Your task to perform on an android device: See recent photos Image 0: 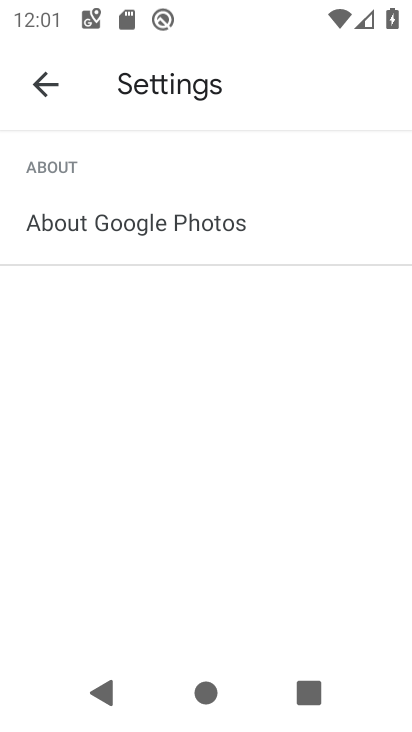
Step 0: press home button
Your task to perform on an android device: See recent photos Image 1: 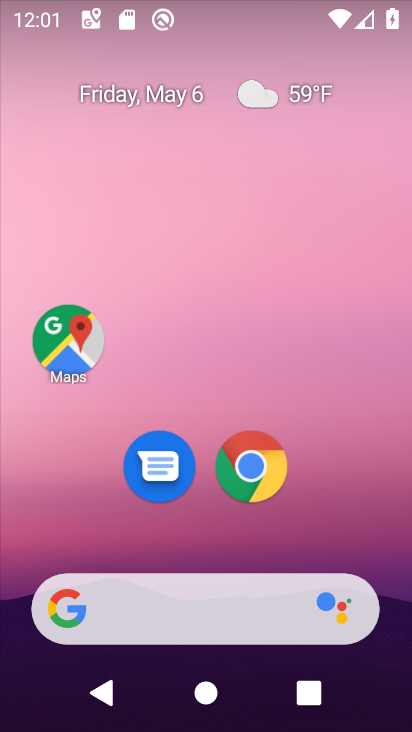
Step 1: drag from (389, 577) to (289, 183)
Your task to perform on an android device: See recent photos Image 2: 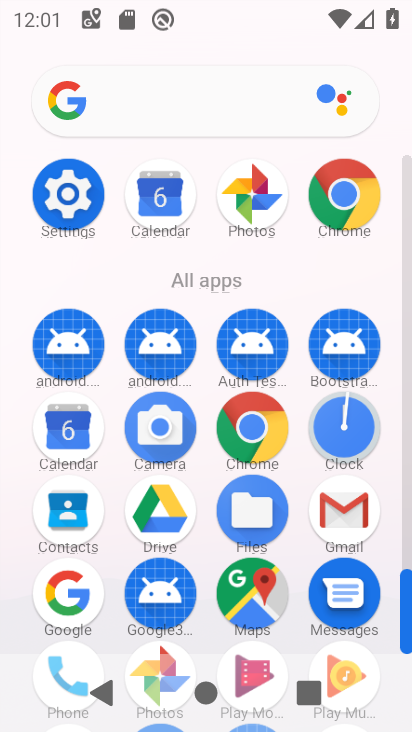
Step 2: click (262, 190)
Your task to perform on an android device: See recent photos Image 3: 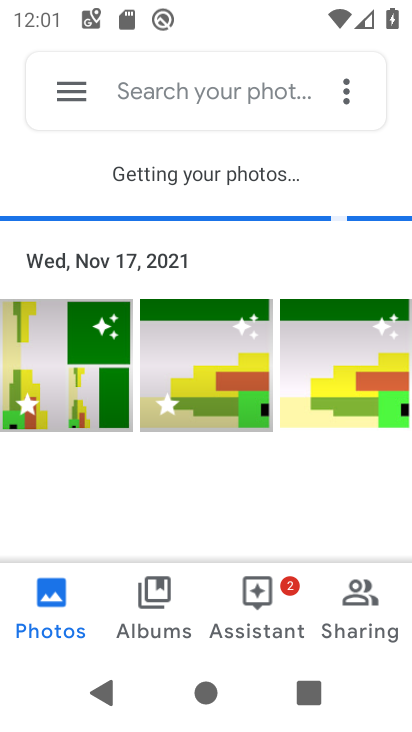
Step 3: task complete